Your task to perform on an android device: turn on airplane mode Image 0: 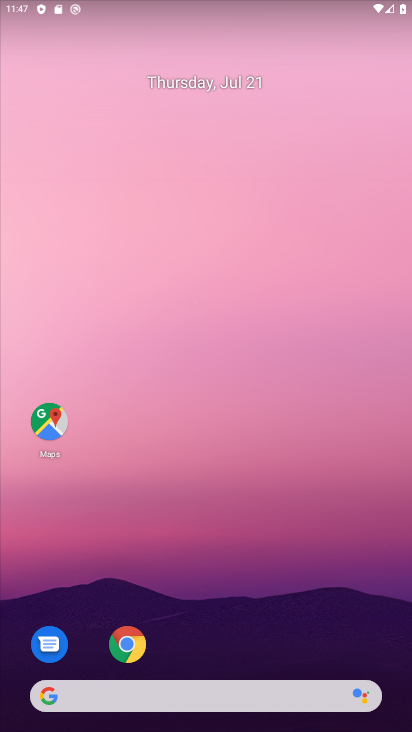
Step 0: drag from (225, 664) to (285, 140)
Your task to perform on an android device: turn on airplane mode Image 1: 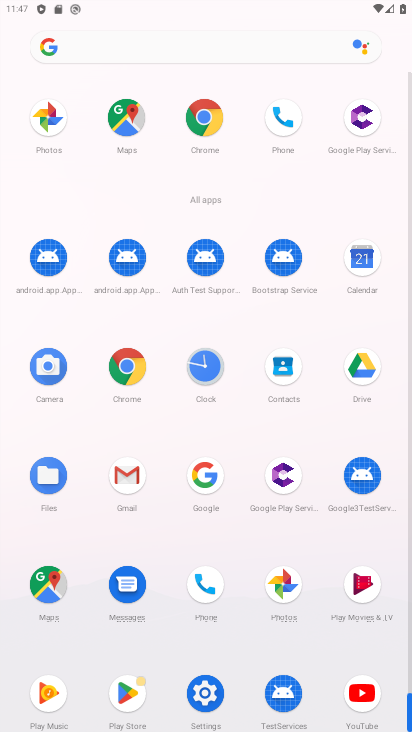
Step 1: click (190, 700)
Your task to perform on an android device: turn on airplane mode Image 2: 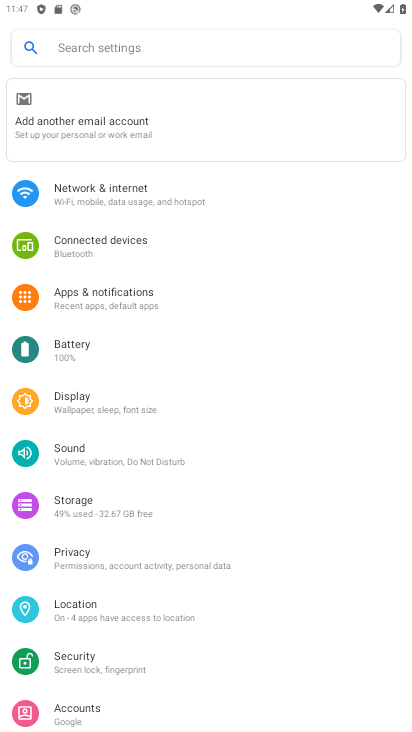
Step 2: drag from (138, 425) to (177, 237)
Your task to perform on an android device: turn on airplane mode Image 3: 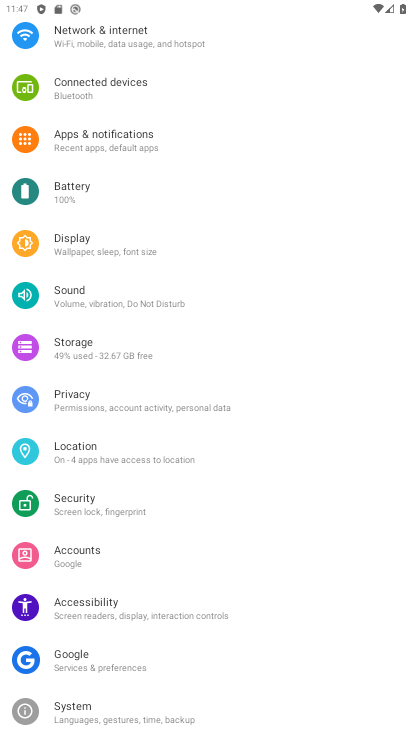
Step 3: drag from (121, 123) to (147, 531)
Your task to perform on an android device: turn on airplane mode Image 4: 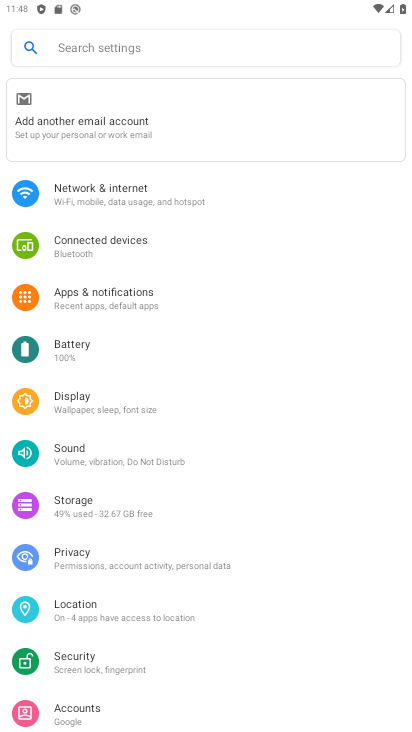
Step 4: click (139, 201)
Your task to perform on an android device: turn on airplane mode Image 5: 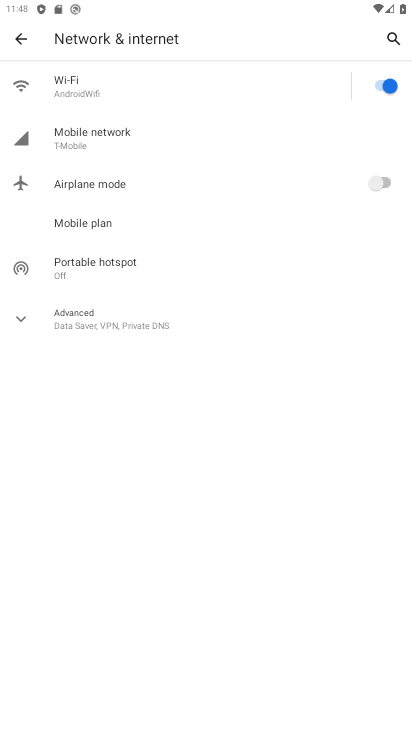
Step 5: click (355, 189)
Your task to perform on an android device: turn on airplane mode Image 6: 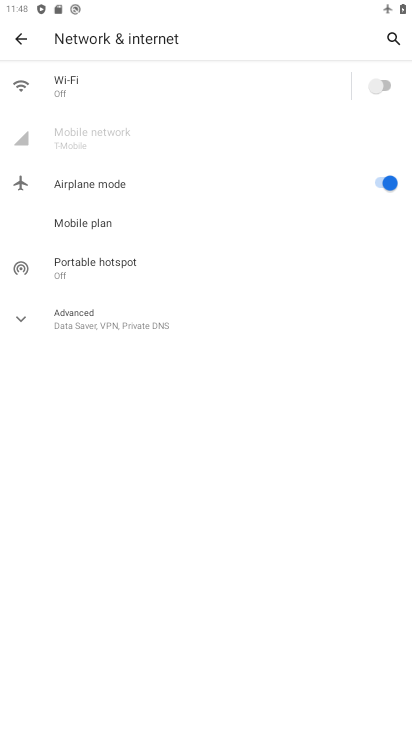
Step 6: task complete